Your task to perform on an android device: delete browsing data in the chrome app Image 0: 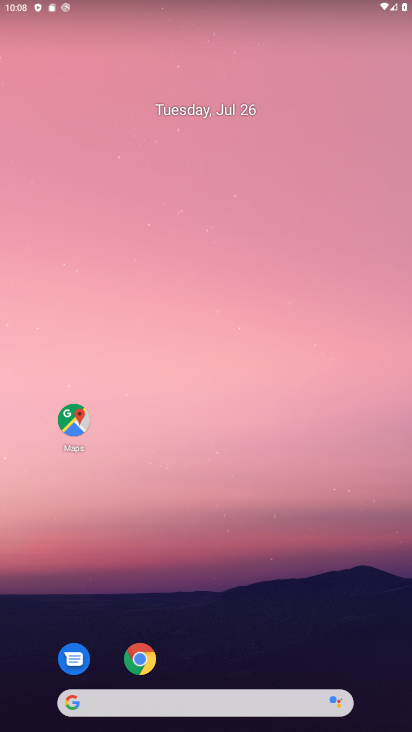
Step 0: press home button
Your task to perform on an android device: delete browsing data in the chrome app Image 1: 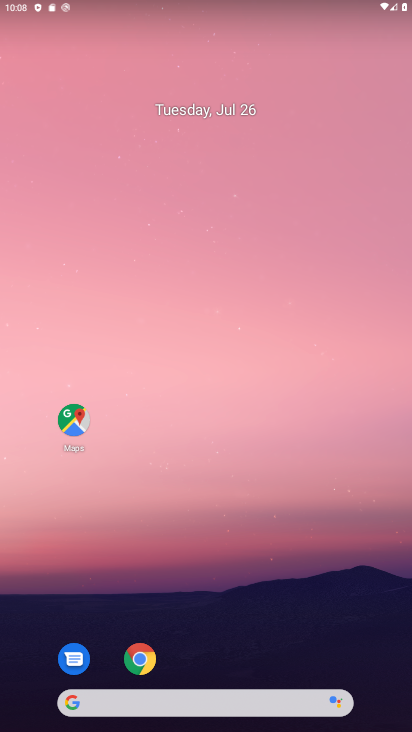
Step 1: drag from (339, 611) to (274, 33)
Your task to perform on an android device: delete browsing data in the chrome app Image 2: 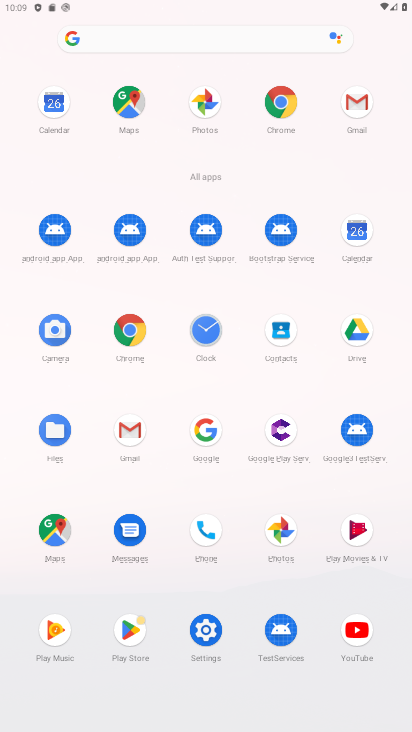
Step 2: click (125, 333)
Your task to perform on an android device: delete browsing data in the chrome app Image 3: 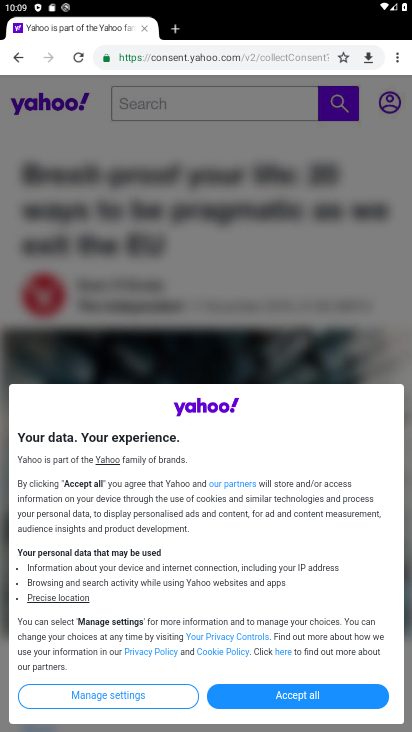
Step 3: drag from (395, 52) to (259, 381)
Your task to perform on an android device: delete browsing data in the chrome app Image 4: 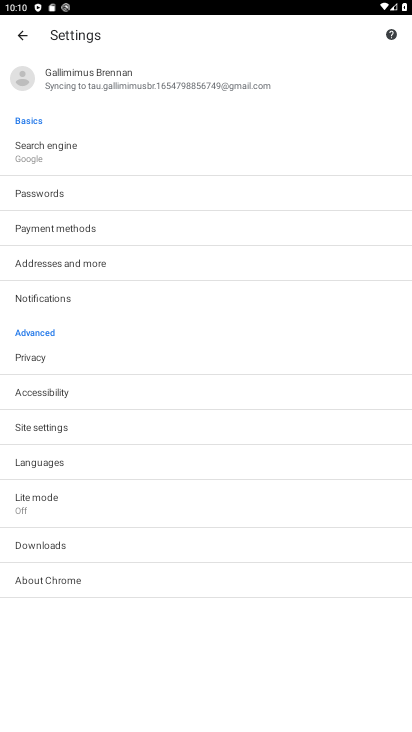
Step 4: click (45, 351)
Your task to perform on an android device: delete browsing data in the chrome app Image 5: 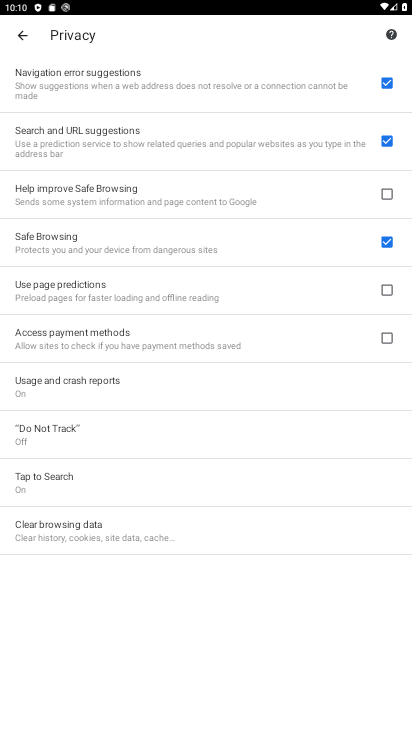
Step 5: click (16, 541)
Your task to perform on an android device: delete browsing data in the chrome app Image 6: 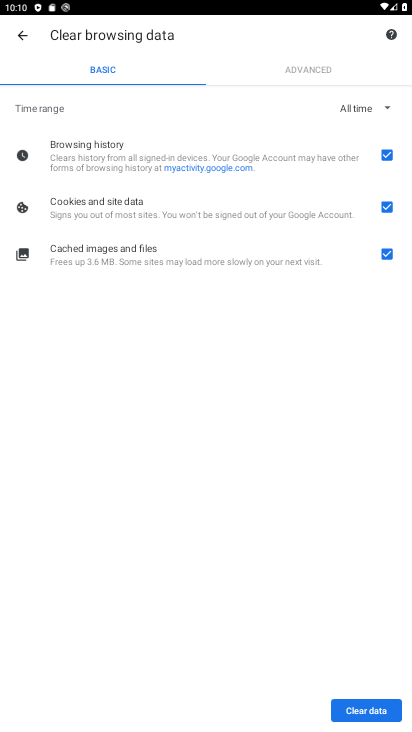
Step 6: click (373, 727)
Your task to perform on an android device: delete browsing data in the chrome app Image 7: 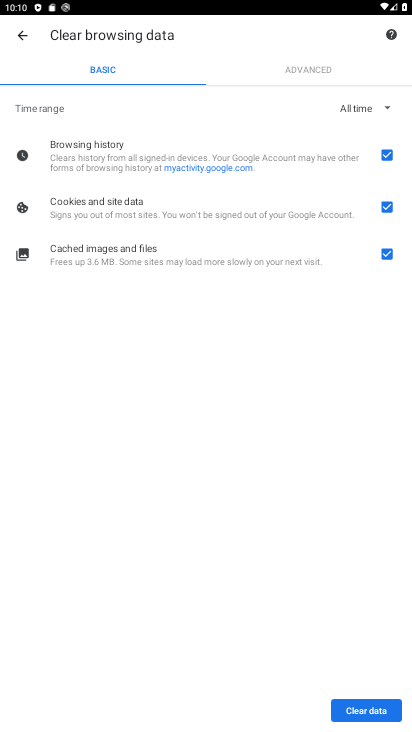
Step 7: click (362, 708)
Your task to perform on an android device: delete browsing data in the chrome app Image 8: 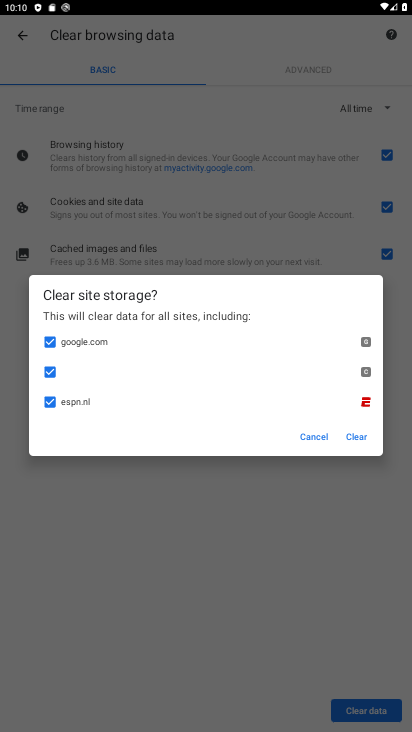
Step 8: click (359, 441)
Your task to perform on an android device: delete browsing data in the chrome app Image 9: 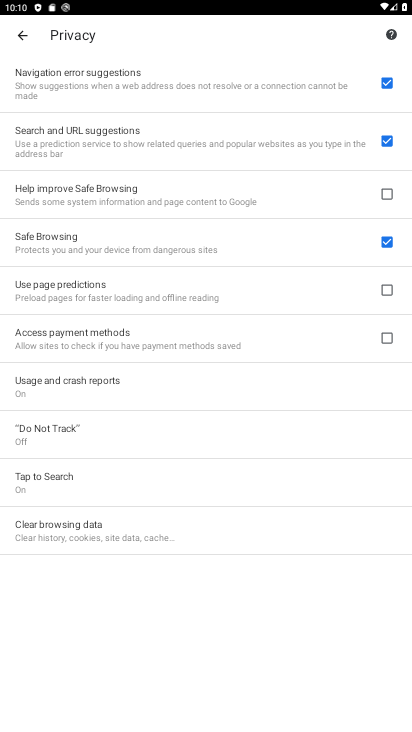
Step 9: task complete